Your task to perform on an android device: turn on the 12-hour format for clock Image 0: 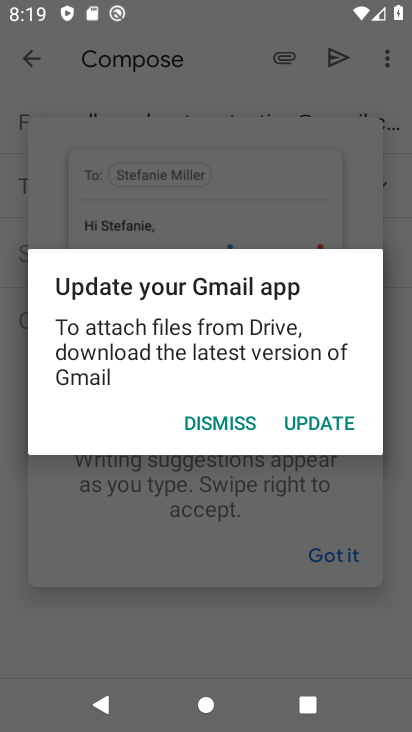
Step 0: press home button
Your task to perform on an android device: turn on the 12-hour format for clock Image 1: 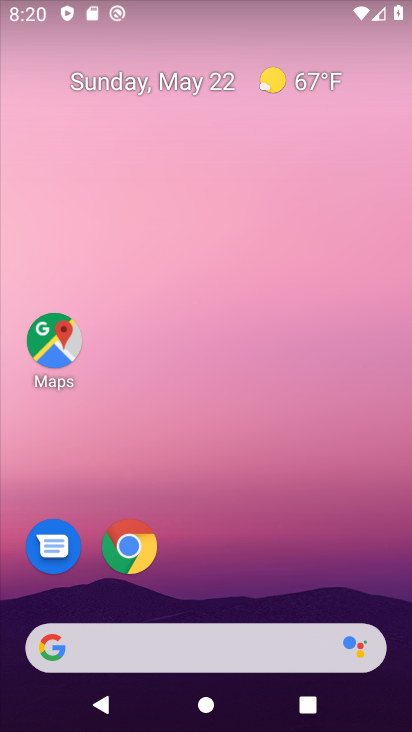
Step 1: drag from (226, 541) to (242, 69)
Your task to perform on an android device: turn on the 12-hour format for clock Image 2: 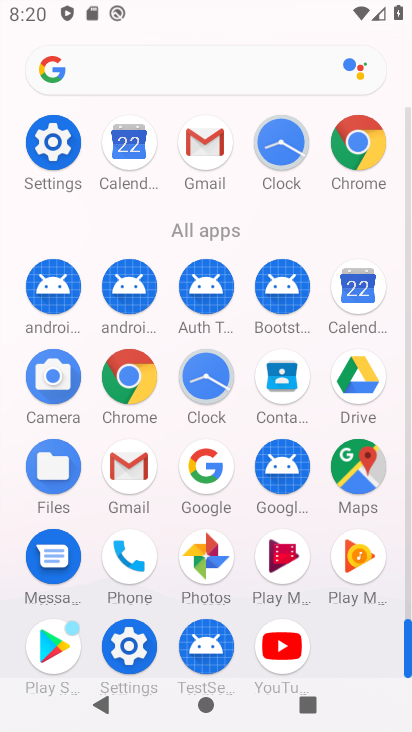
Step 2: click (105, 646)
Your task to perform on an android device: turn on the 12-hour format for clock Image 3: 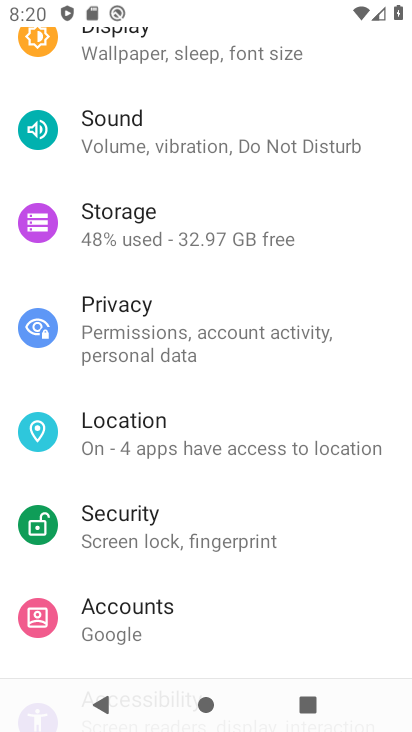
Step 3: drag from (201, 629) to (199, 394)
Your task to perform on an android device: turn on the 12-hour format for clock Image 4: 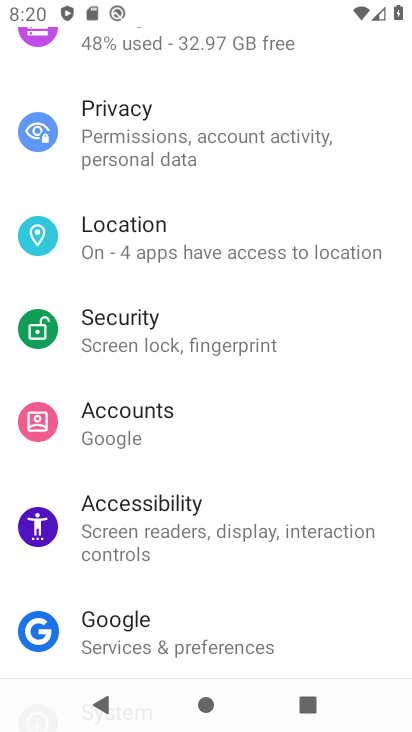
Step 4: drag from (165, 576) to (212, 103)
Your task to perform on an android device: turn on the 12-hour format for clock Image 5: 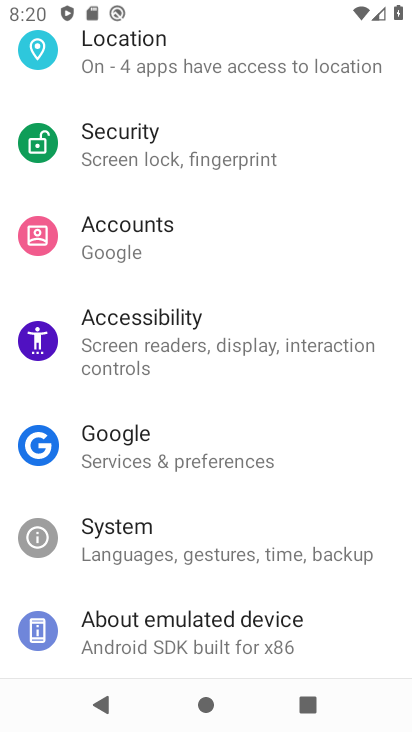
Step 5: click (170, 549)
Your task to perform on an android device: turn on the 12-hour format for clock Image 6: 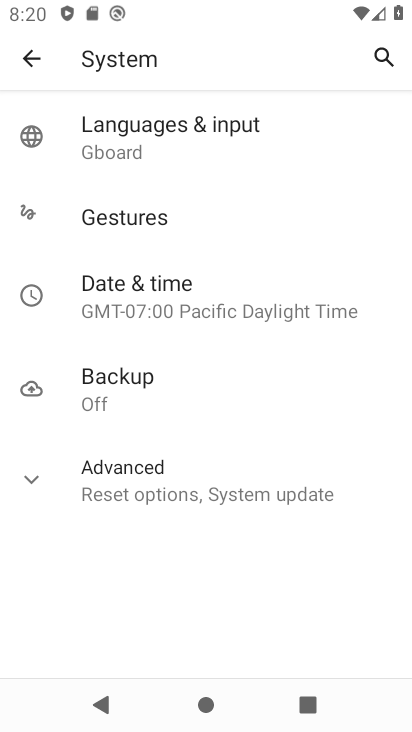
Step 6: click (162, 296)
Your task to perform on an android device: turn on the 12-hour format for clock Image 7: 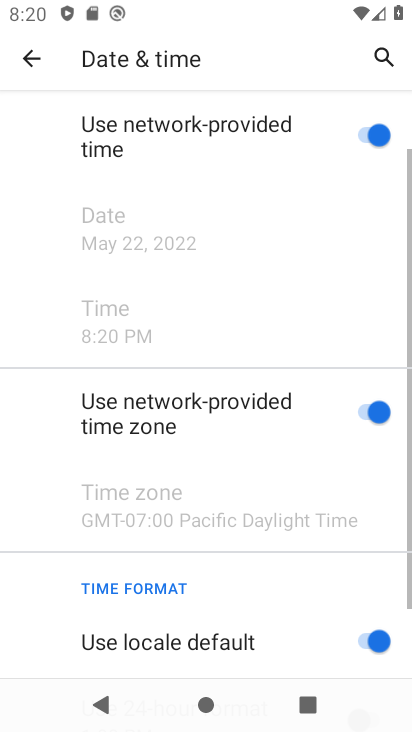
Step 7: task complete